Your task to perform on an android device: Open Chrome and go to settings Image 0: 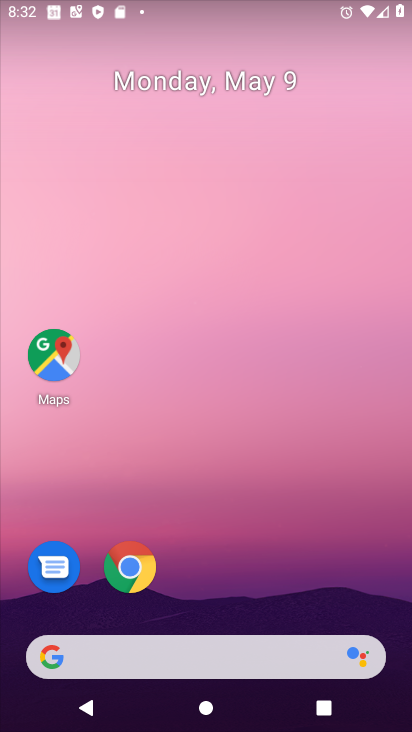
Step 0: drag from (285, 598) to (289, 186)
Your task to perform on an android device: Open Chrome and go to settings Image 1: 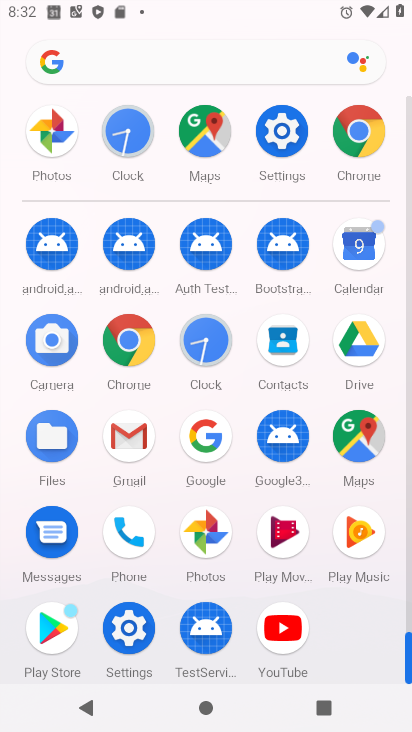
Step 1: click (133, 341)
Your task to perform on an android device: Open Chrome and go to settings Image 2: 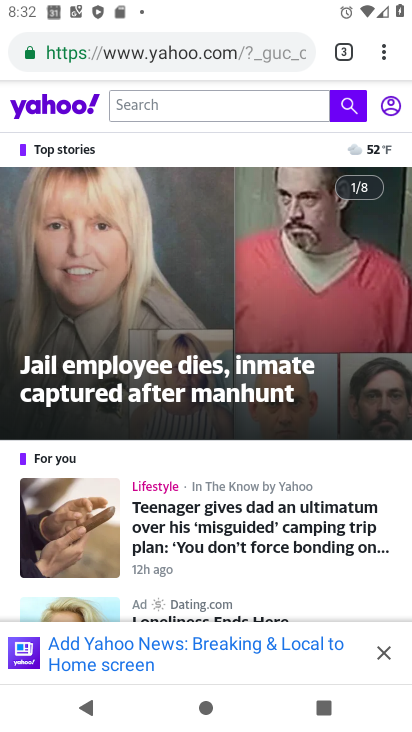
Step 2: task complete